Your task to perform on an android device: open app "Fetch Rewards" Image 0: 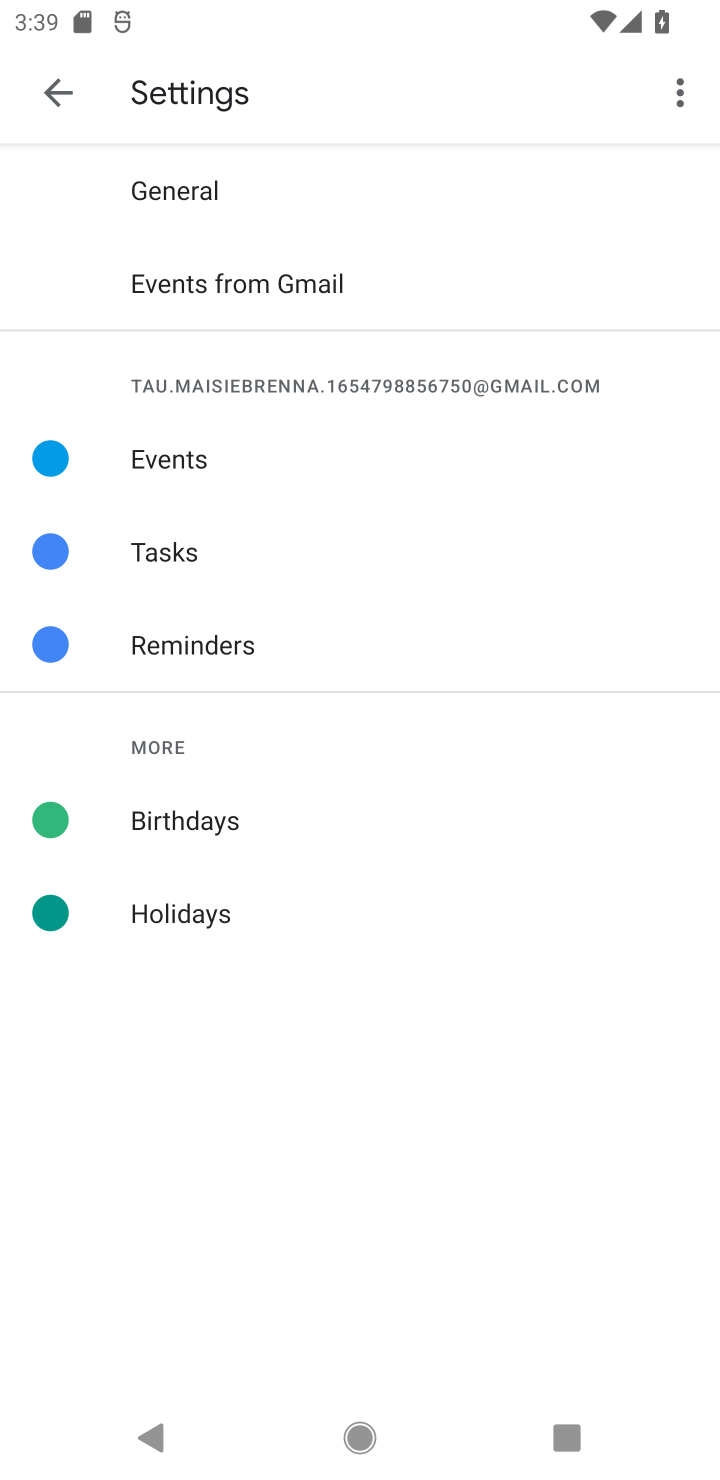
Step 0: press home button
Your task to perform on an android device: open app "Fetch Rewards" Image 1: 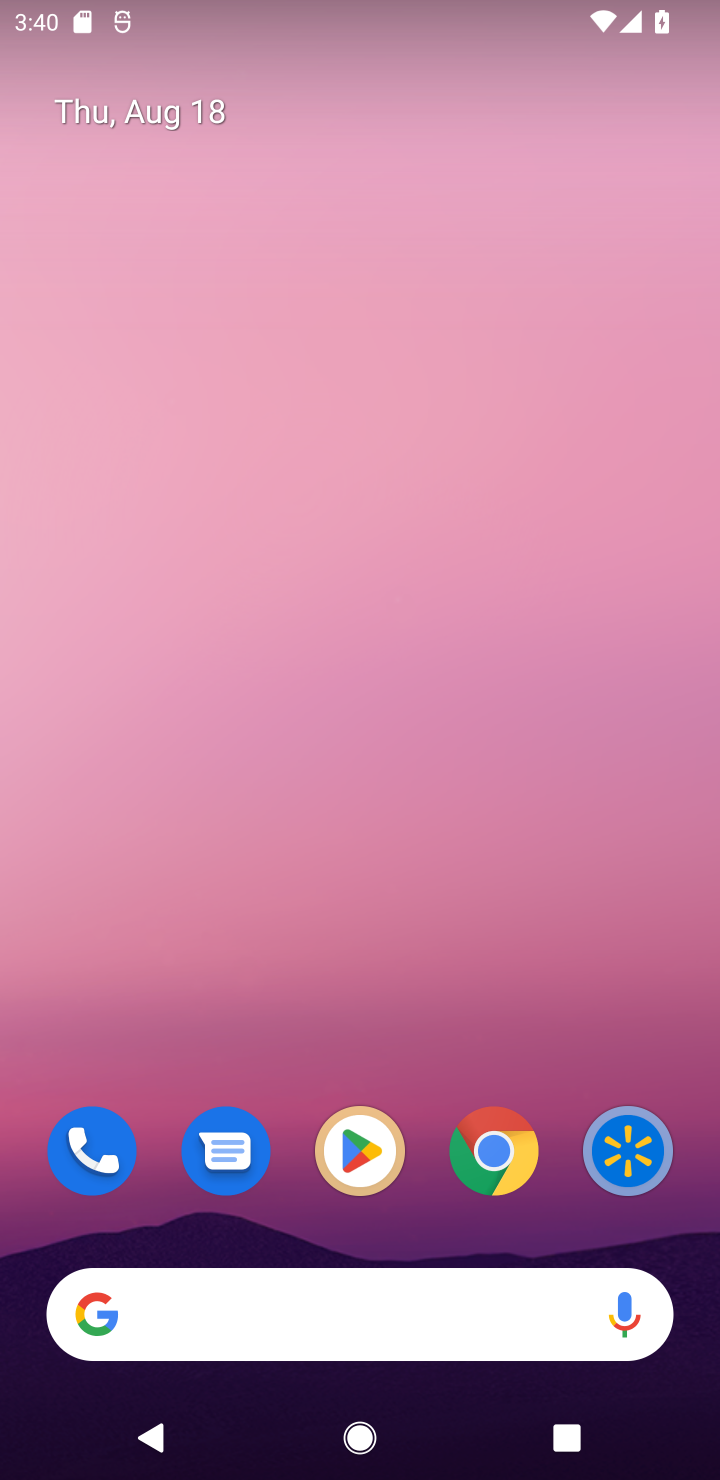
Step 1: click (334, 1162)
Your task to perform on an android device: open app "Fetch Rewards" Image 2: 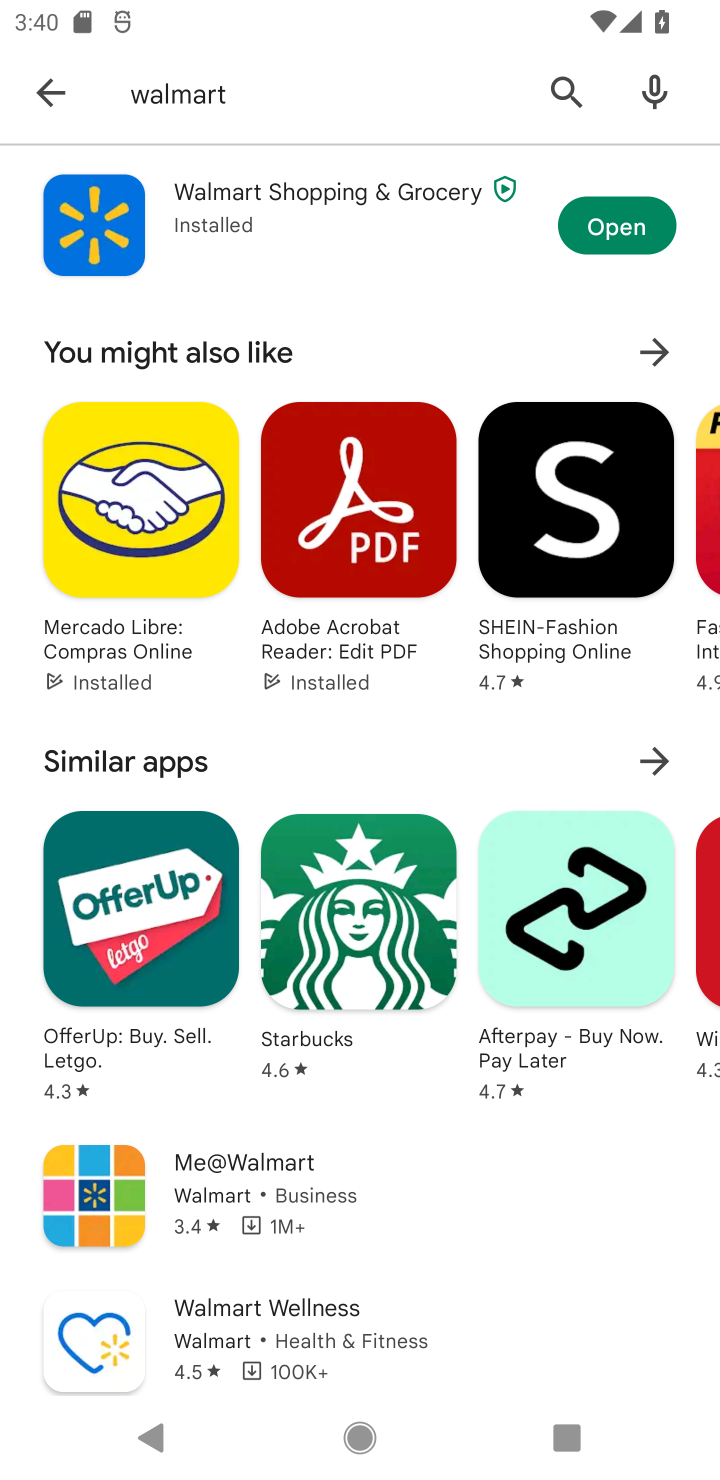
Step 2: click (555, 123)
Your task to perform on an android device: open app "Fetch Rewards" Image 3: 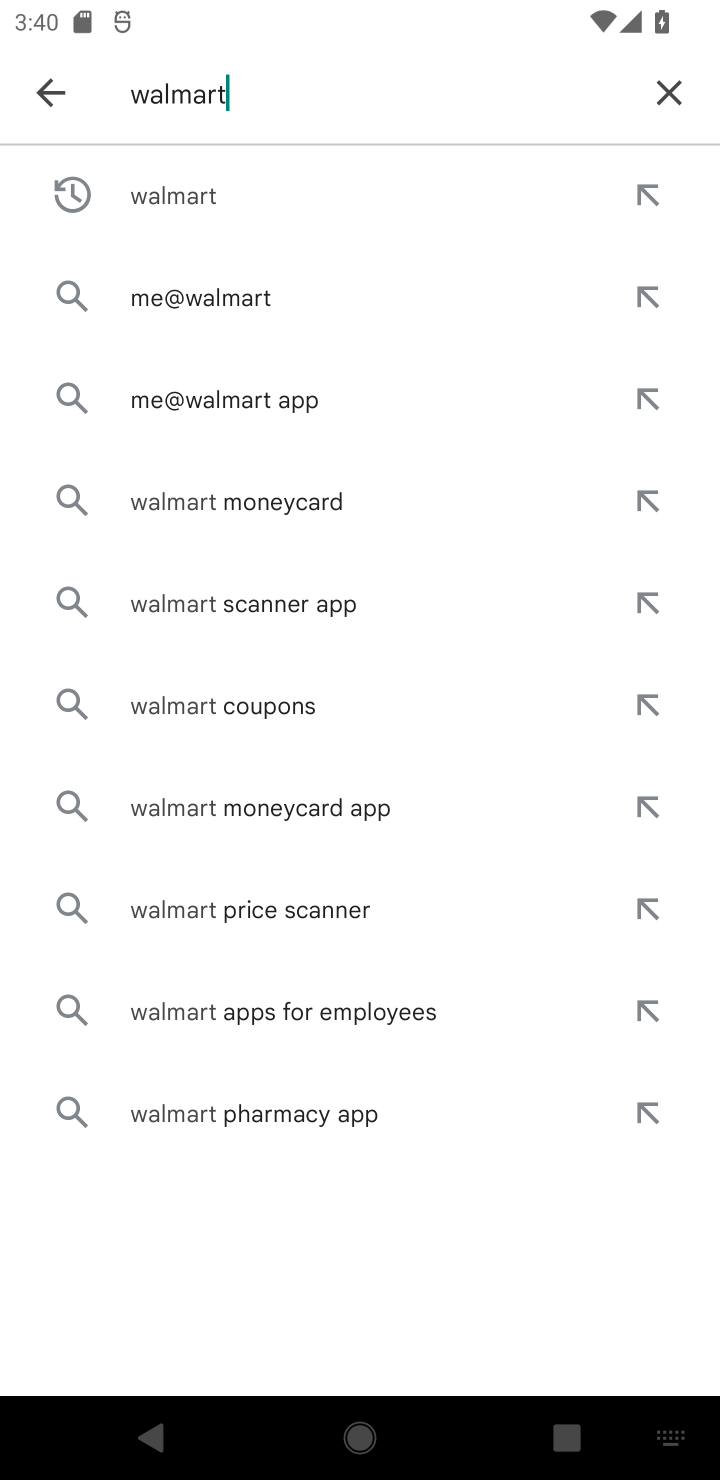
Step 3: click (653, 90)
Your task to perform on an android device: open app "Fetch Rewards" Image 4: 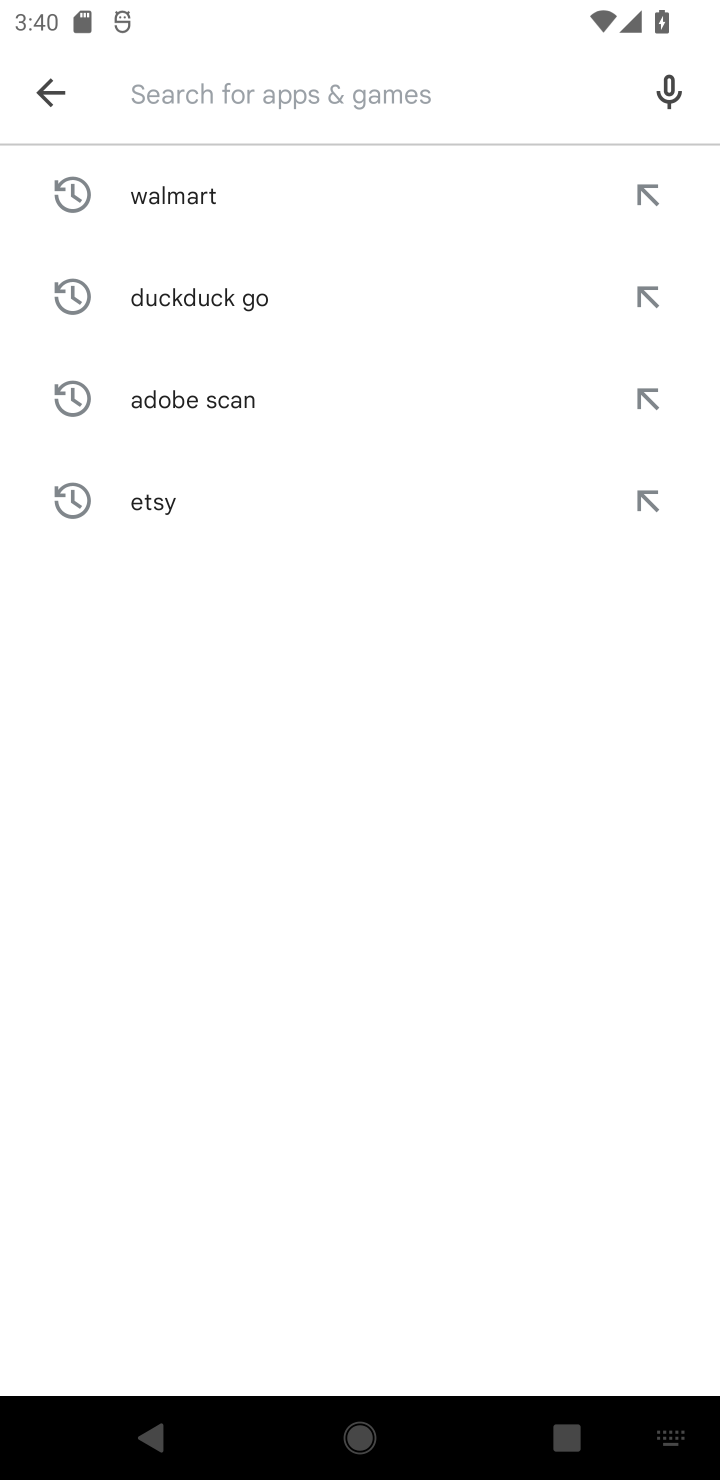
Step 4: type "fetch reward"
Your task to perform on an android device: open app "Fetch Rewards" Image 5: 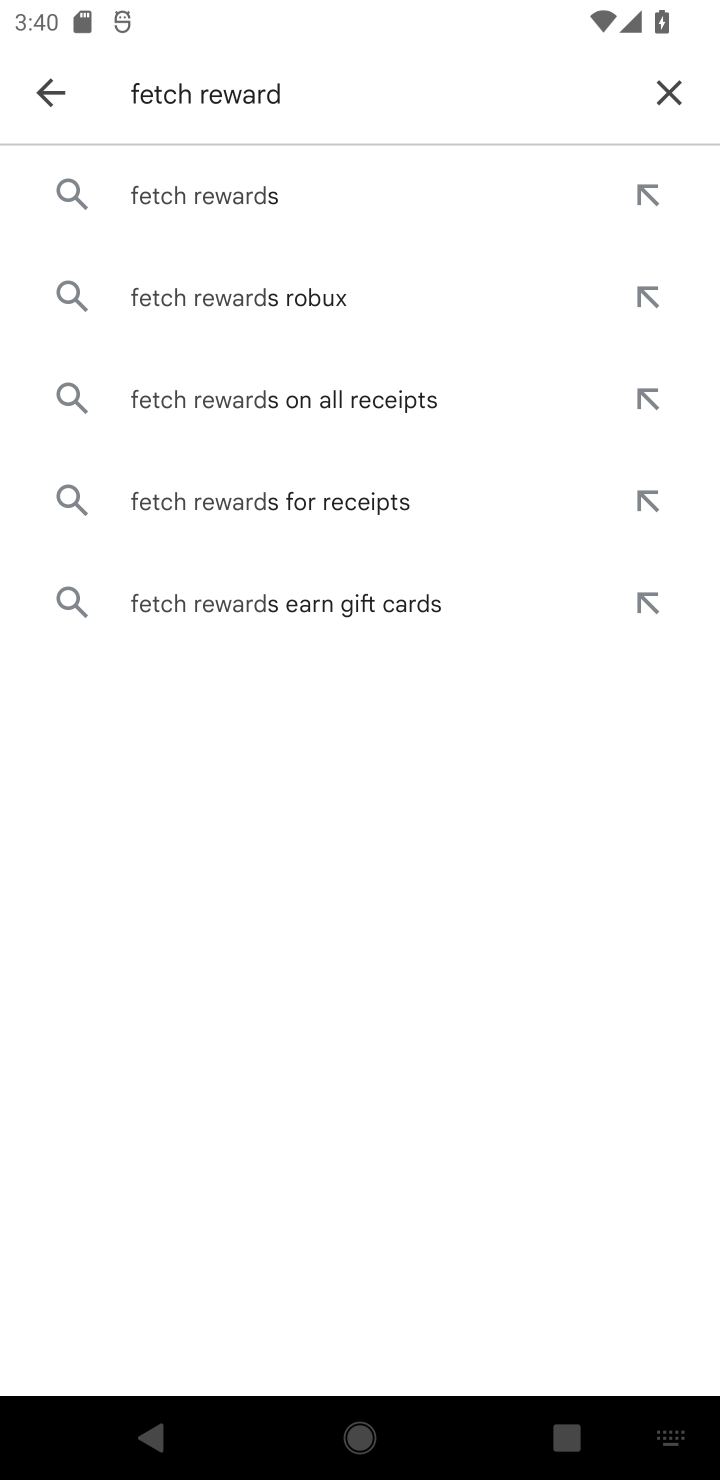
Step 5: click (245, 182)
Your task to perform on an android device: open app "Fetch Rewards" Image 6: 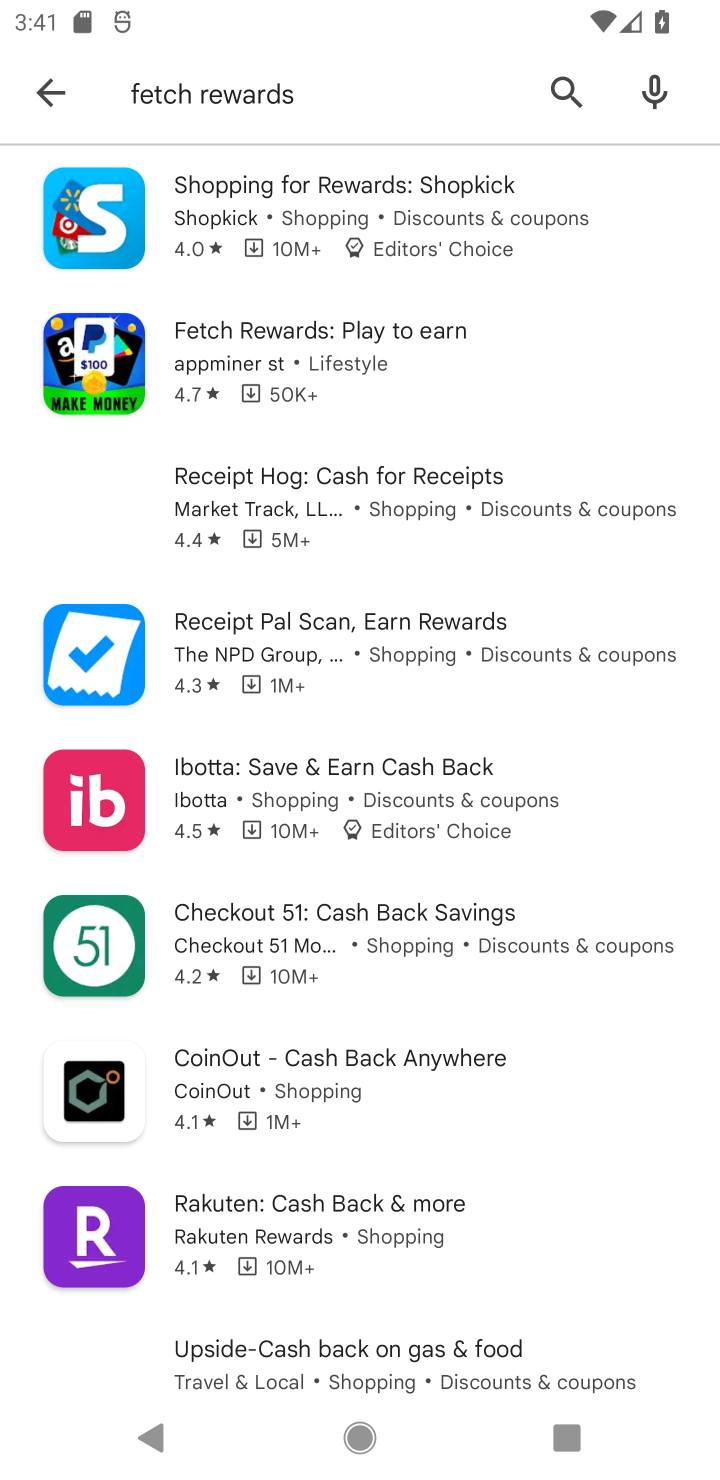
Step 6: click (278, 317)
Your task to perform on an android device: open app "Fetch Rewards" Image 7: 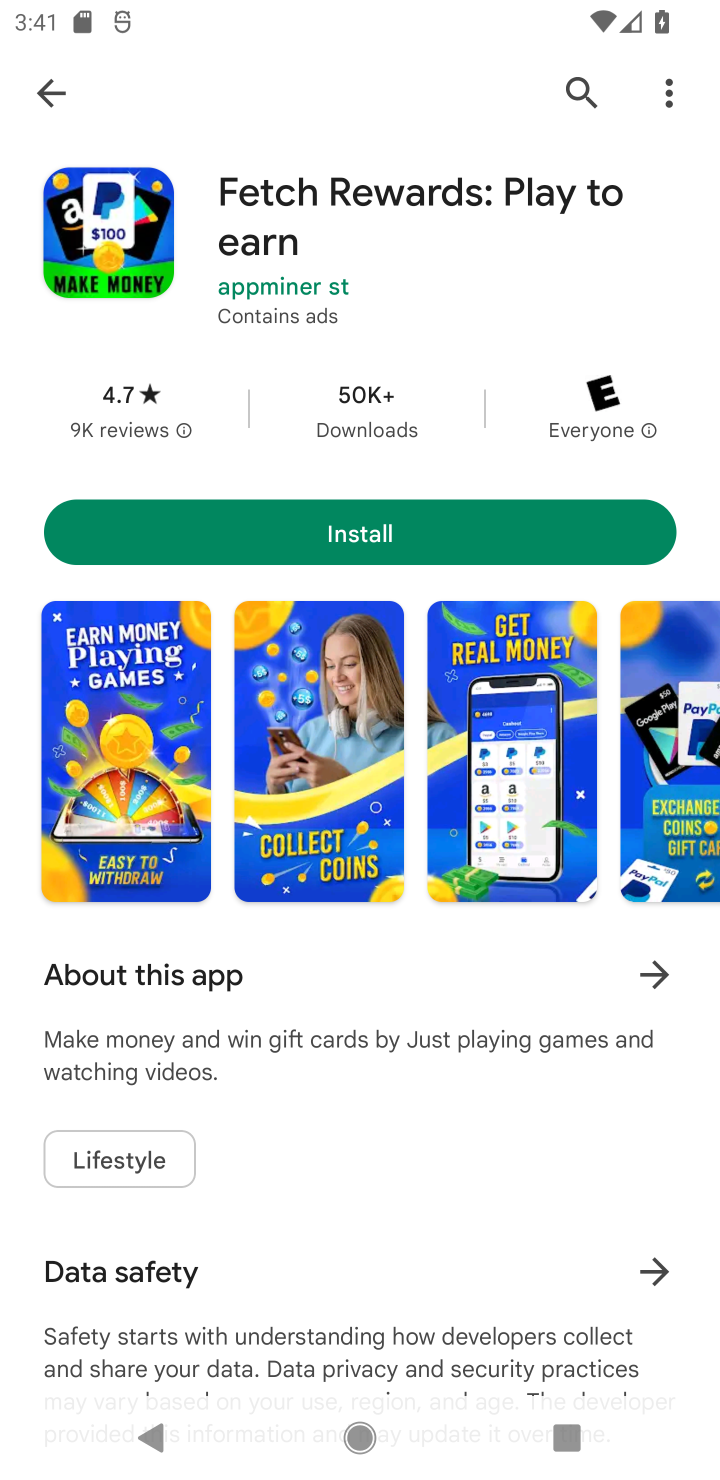
Step 7: click (294, 540)
Your task to perform on an android device: open app "Fetch Rewards" Image 8: 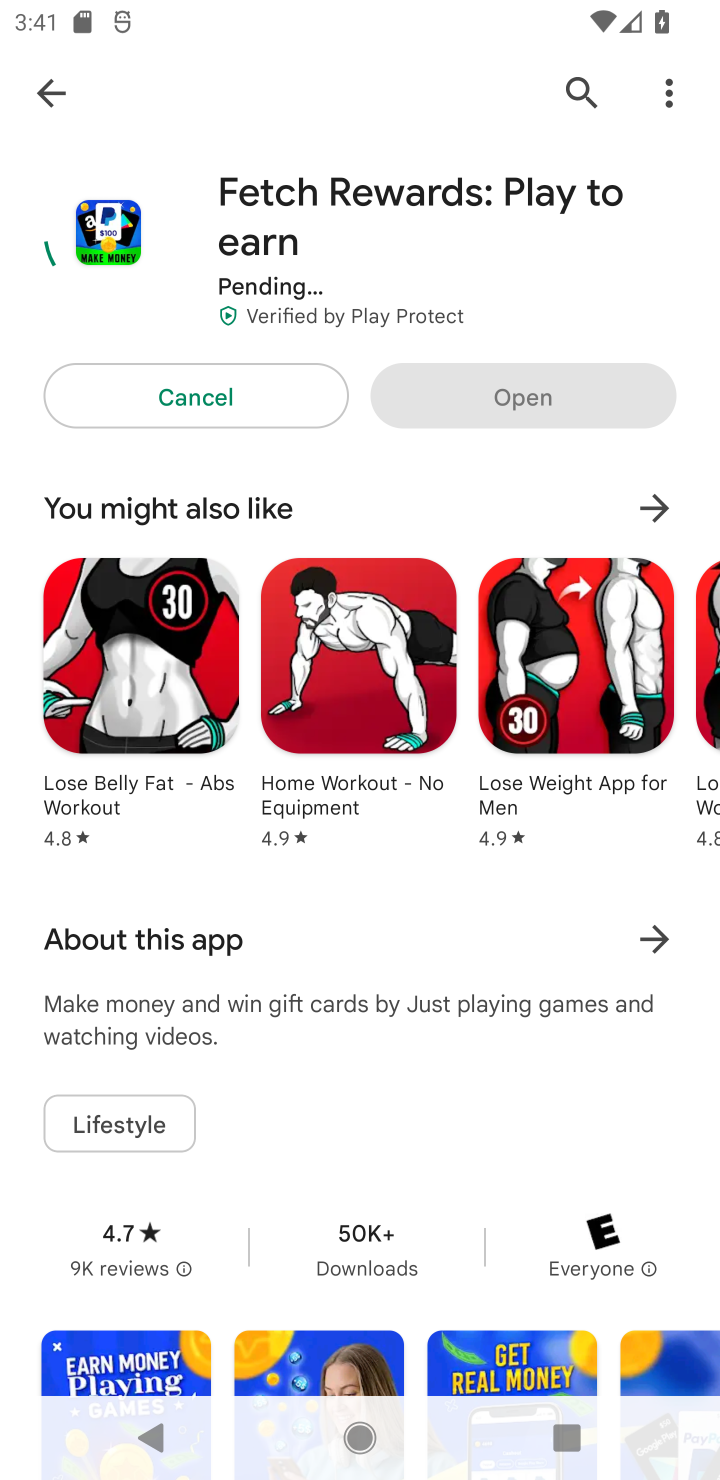
Step 8: task complete